Your task to perform on an android device: Set the phone to "Do not disturb". Image 0: 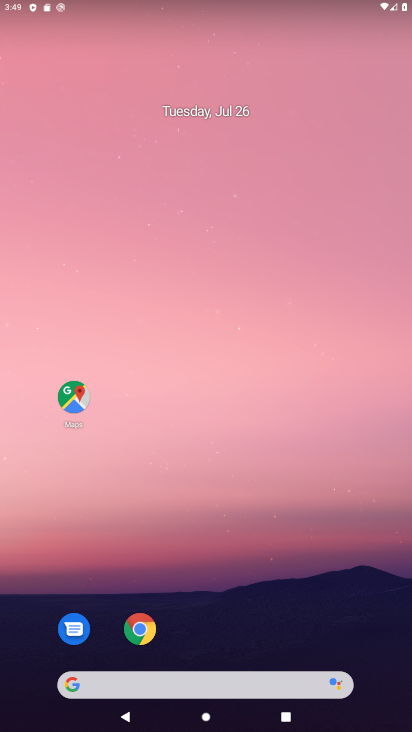
Step 0: drag from (197, 3) to (216, 438)
Your task to perform on an android device: Set the phone to "Do not disturb". Image 1: 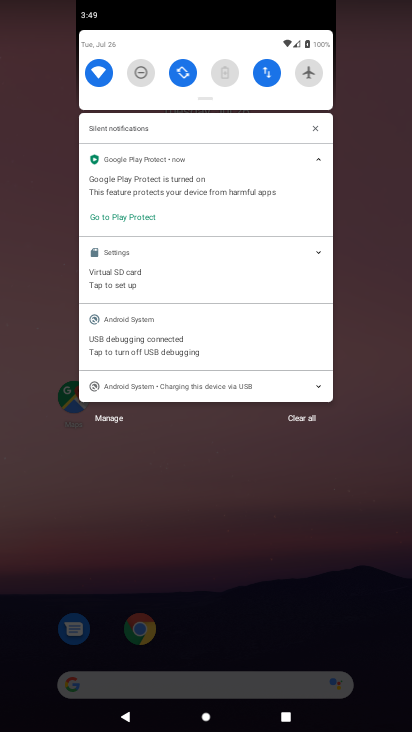
Step 1: click (144, 79)
Your task to perform on an android device: Set the phone to "Do not disturb". Image 2: 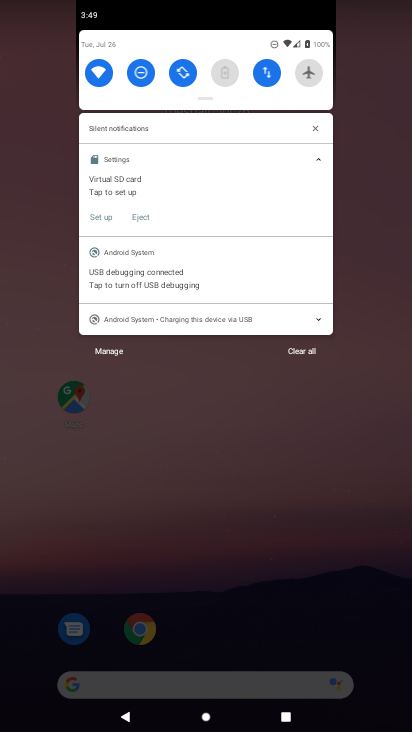
Step 2: task complete